Your task to perform on an android device: Search for pizza restaurants on Maps Image 0: 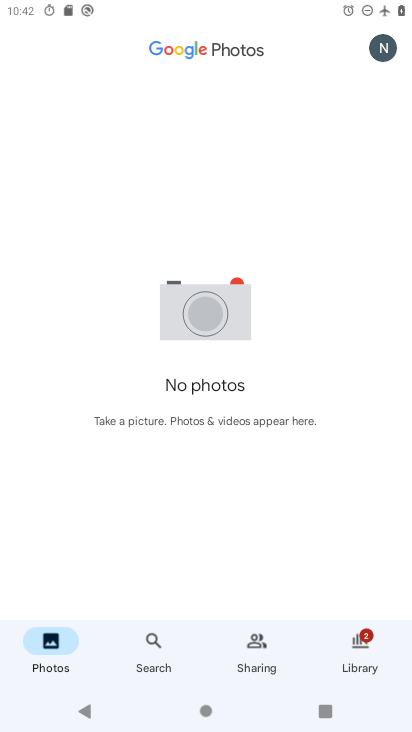
Step 0: press back button
Your task to perform on an android device: Search for pizza restaurants on Maps Image 1: 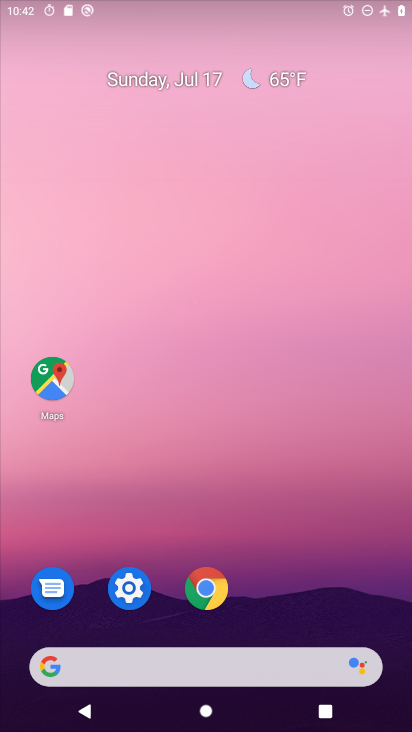
Step 1: drag from (198, 543) to (169, 320)
Your task to perform on an android device: Search for pizza restaurants on Maps Image 2: 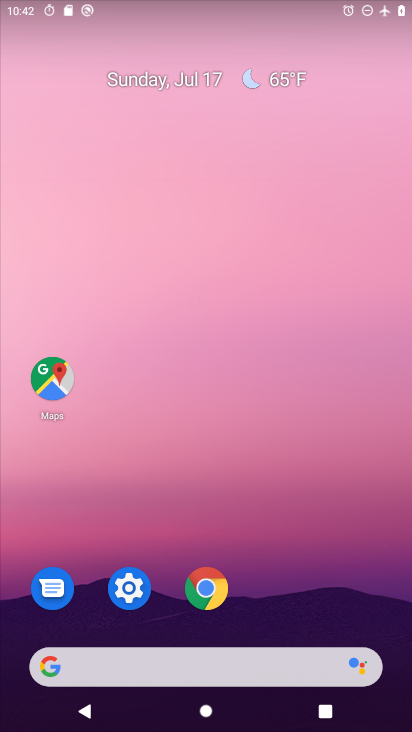
Step 2: drag from (308, 613) to (272, 254)
Your task to perform on an android device: Search for pizza restaurants on Maps Image 3: 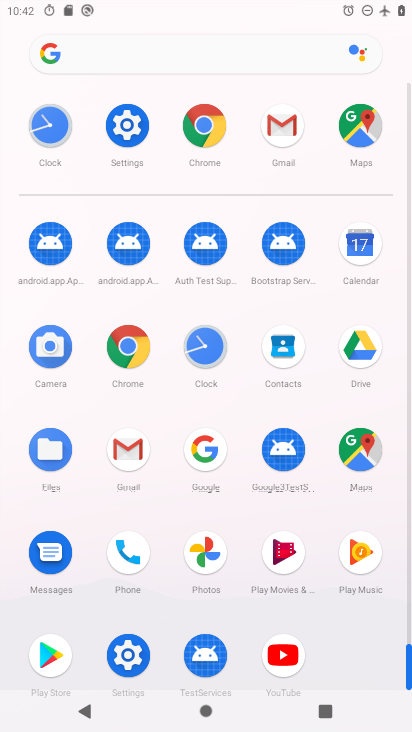
Step 3: drag from (202, 588) to (202, 165)
Your task to perform on an android device: Search for pizza restaurants on Maps Image 4: 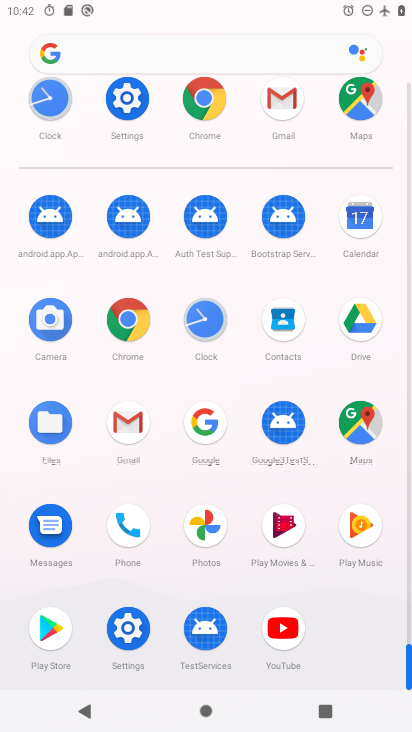
Step 4: click (346, 417)
Your task to perform on an android device: Search for pizza restaurants on Maps Image 5: 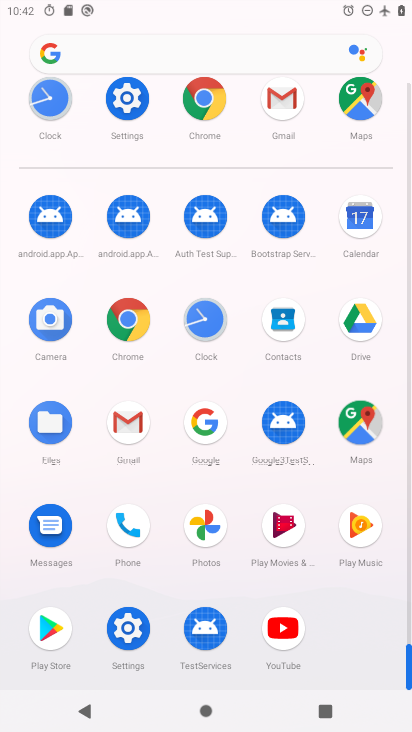
Step 5: click (349, 417)
Your task to perform on an android device: Search for pizza restaurants on Maps Image 6: 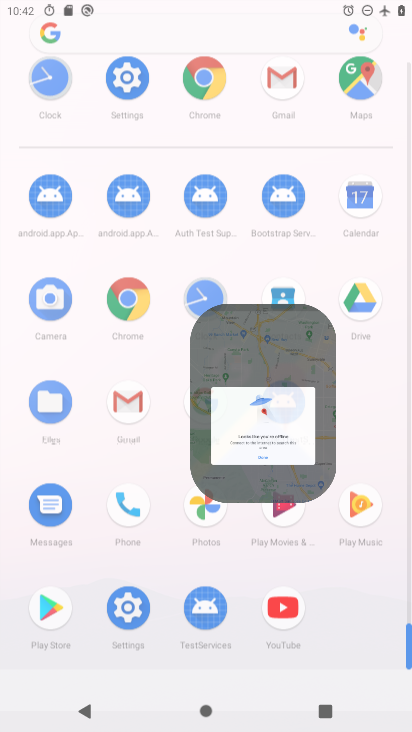
Step 6: click (350, 418)
Your task to perform on an android device: Search for pizza restaurants on Maps Image 7: 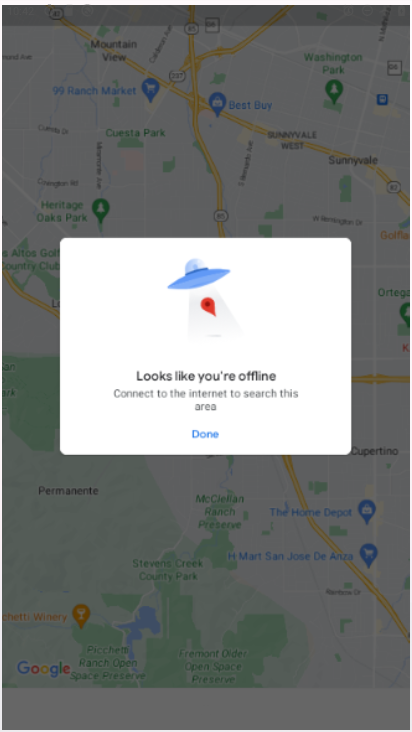
Step 7: click (350, 419)
Your task to perform on an android device: Search for pizza restaurants on Maps Image 8: 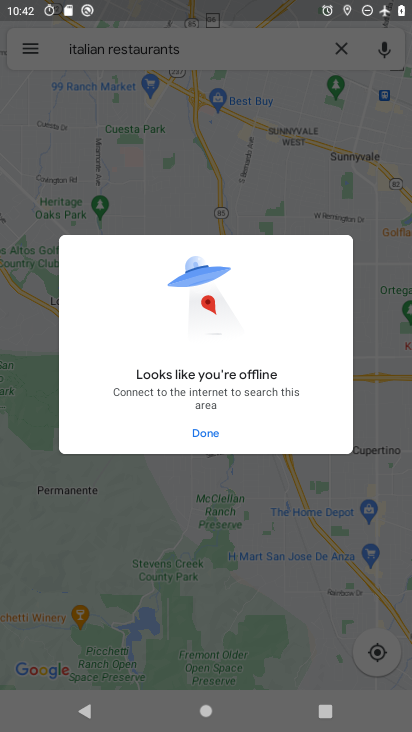
Step 8: click (203, 424)
Your task to perform on an android device: Search for pizza restaurants on Maps Image 9: 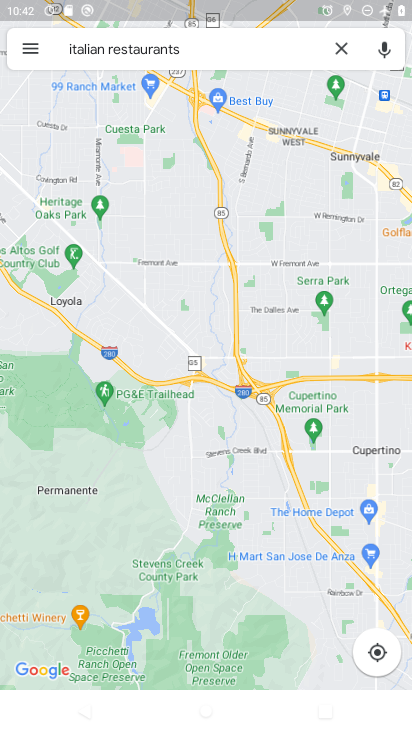
Step 9: click (201, 44)
Your task to perform on an android device: Search for pizza restaurants on Maps Image 10: 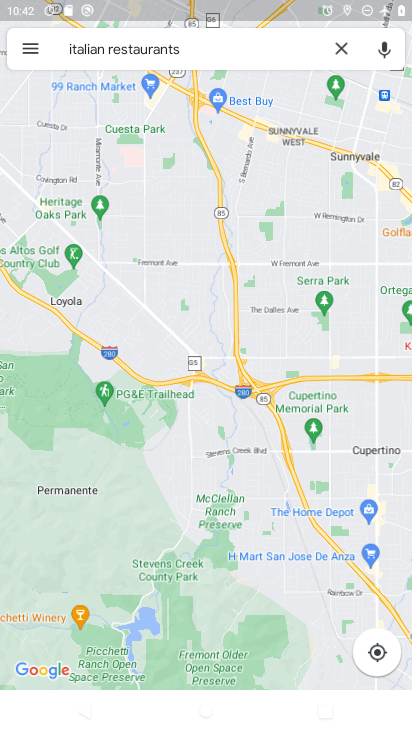
Step 10: click (202, 48)
Your task to perform on an android device: Search for pizza restaurants on Maps Image 11: 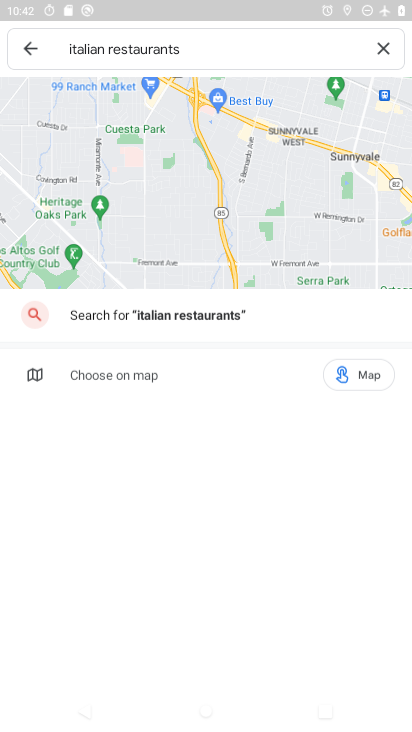
Step 11: click (202, 48)
Your task to perform on an android device: Search for pizza restaurants on Maps Image 12: 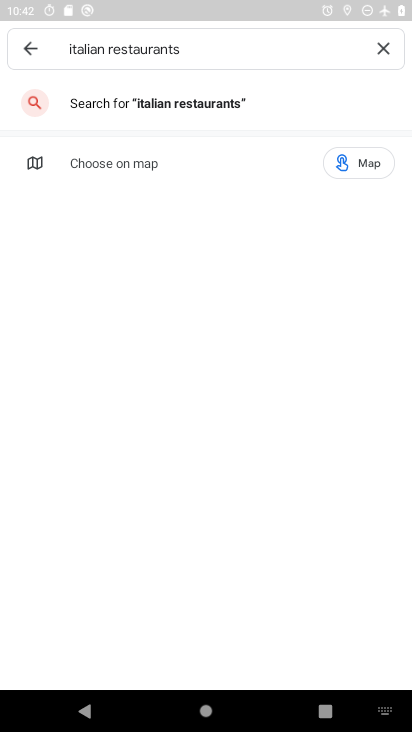
Step 12: click (97, 44)
Your task to perform on an android device: Search for pizza restaurants on Maps Image 13: 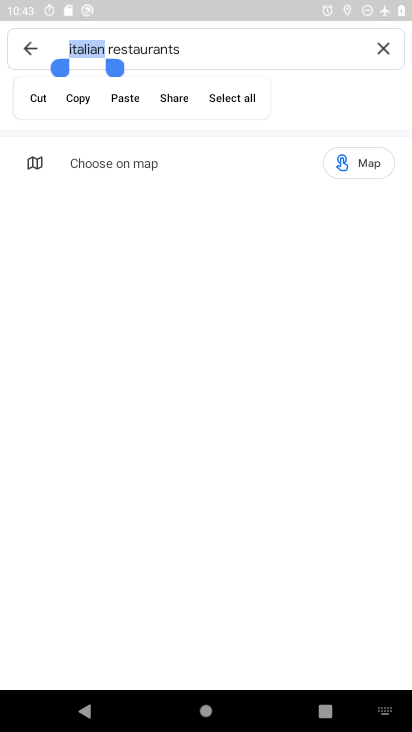
Step 13: click (384, 37)
Your task to perform on an android device: Search for pizza restaurants on Maps Image 14: 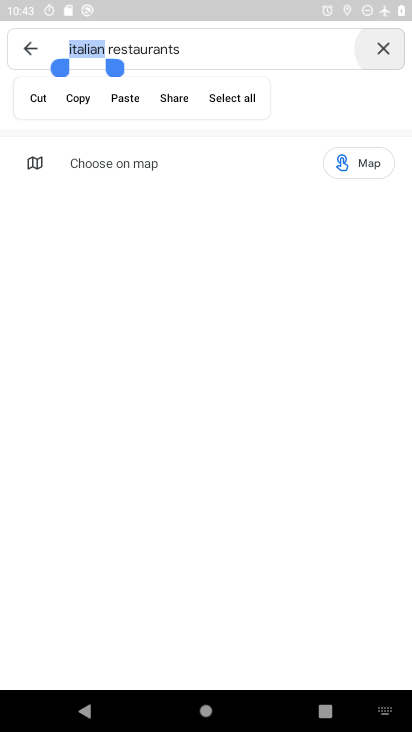
Step 14: click (384, 36)
Your task to perform on an android device: Search for pizza restaurants on Maps Image 15: 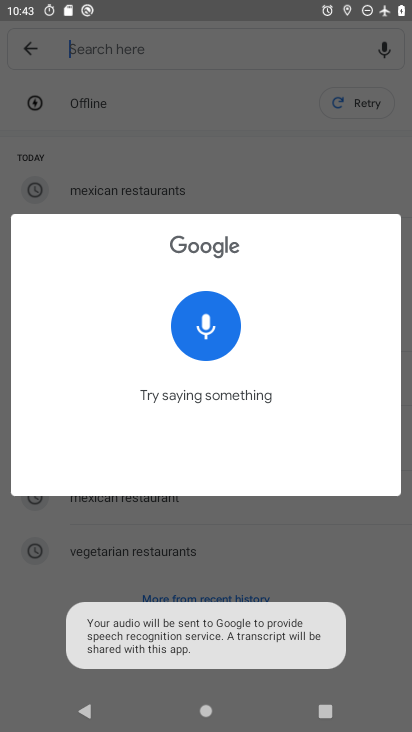
Step 15: click (248, 154)
Your task to perform on an android device: Search for pizza restaurants on Maps Image 16: 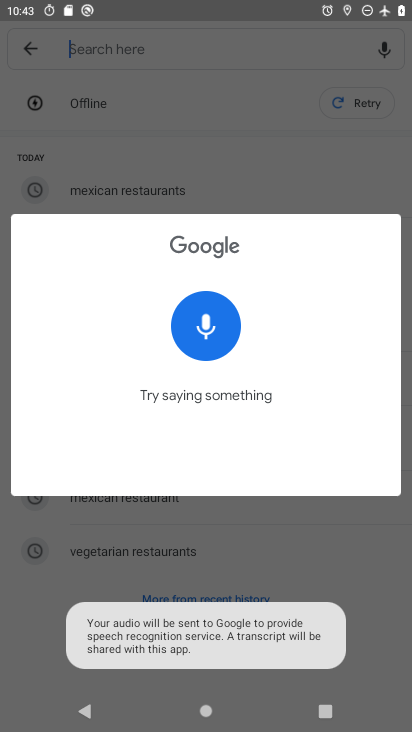
Step 16: click (248, 154)
Your task to perform on an android device: Search for pizza restaurants on Maps Image 17: 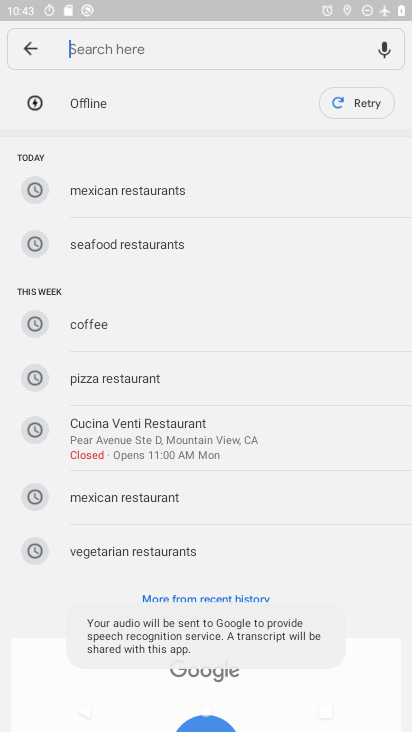
Step 17: click (248, 154)
Your task to perform on an android device: Search for pizza restaurants on Maps Image 18: 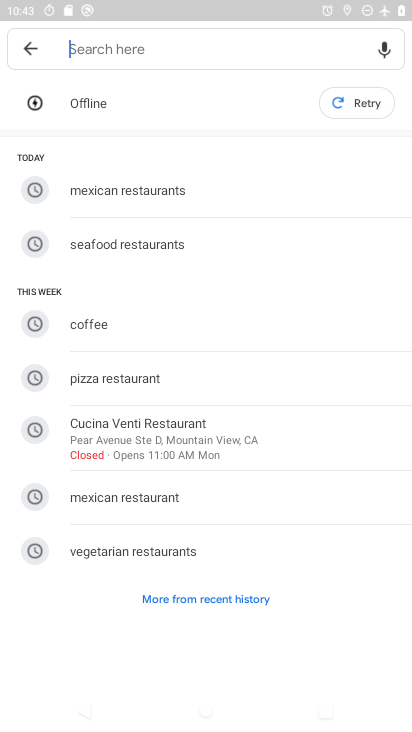
Step 18: type "pizza reestaurants"
Your task to perform on an android device: Search for pizza restaurants on Maps Image 19: 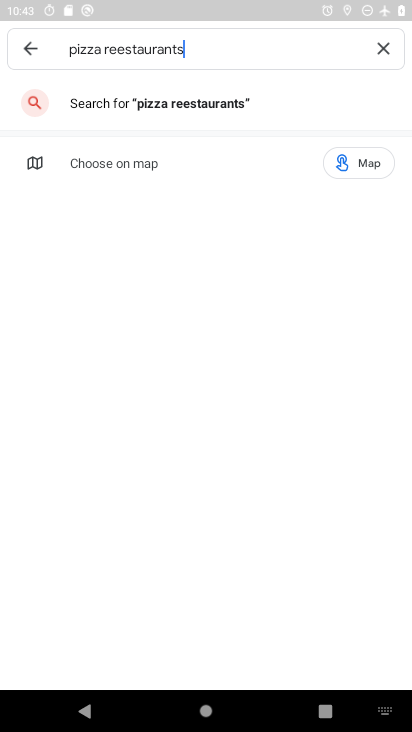
Step 19: click (237, 111)
Your task to perform on an android device: Search for pizza restaurants on Maps Image 20: 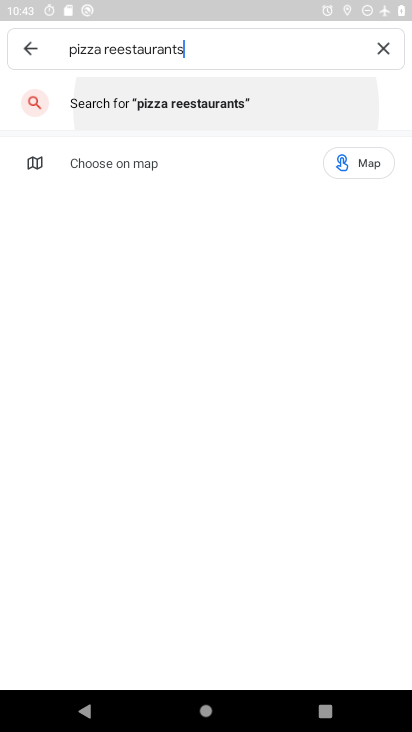
Step 20: click (238, 114)
Your task to perform on an android device: Search for pizza restaurants on Maps Image 21: 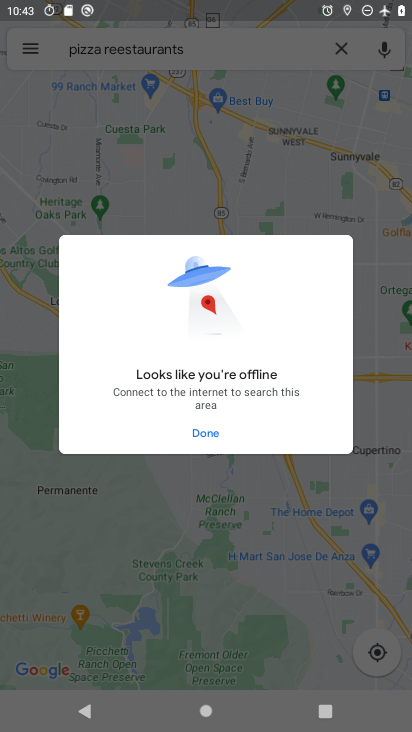
Step 21: click (272, 207)
Your task to perform on an android device: Search for pizza restaurants on Maps Image 22: 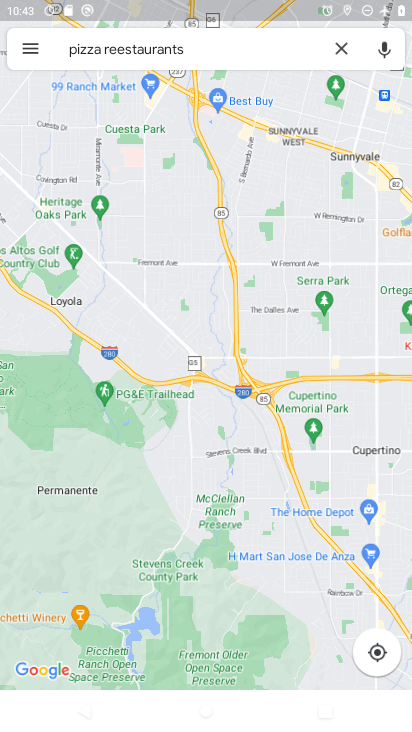
Step 22: task complete